Your task to perform on an android device: toggle data saver in the chrome app Image 0: 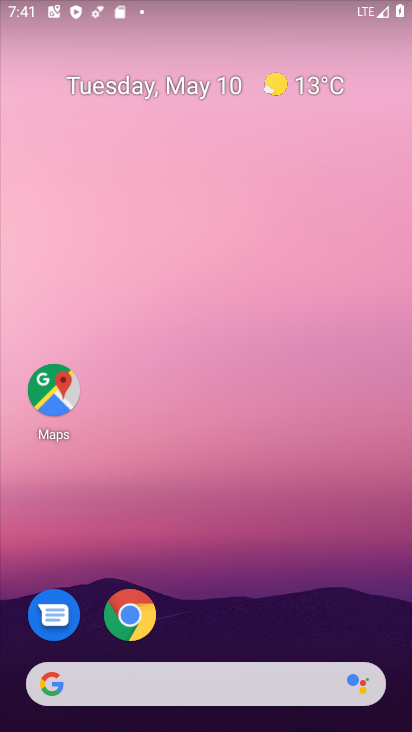
Step 0: drag from (314, 572) to (396, 68)
Your task to perform on an android device: toggle data saver in the chrome app Image 1: 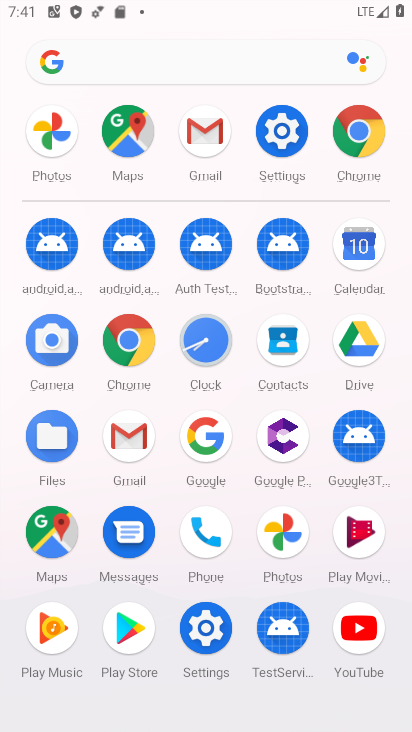
Step 1: click (372, 134)
Your task to perform on an android device: toggle data saver in the chrome app Image 2: 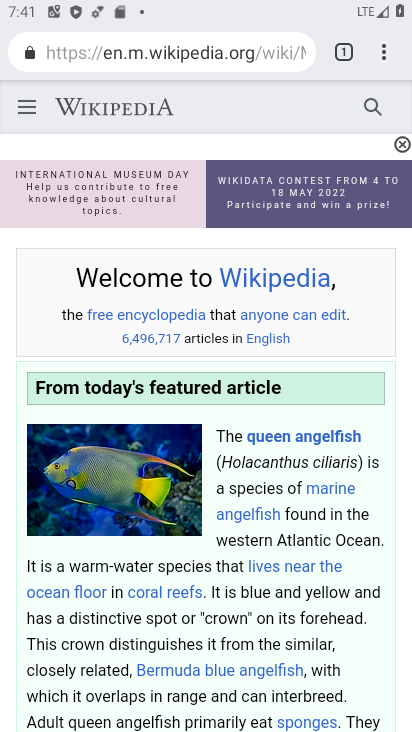
Step 2: drag from (381, 48) to (191, 642)
Your task to perform on an android device: toggle data saver in the chrome app Image 3: 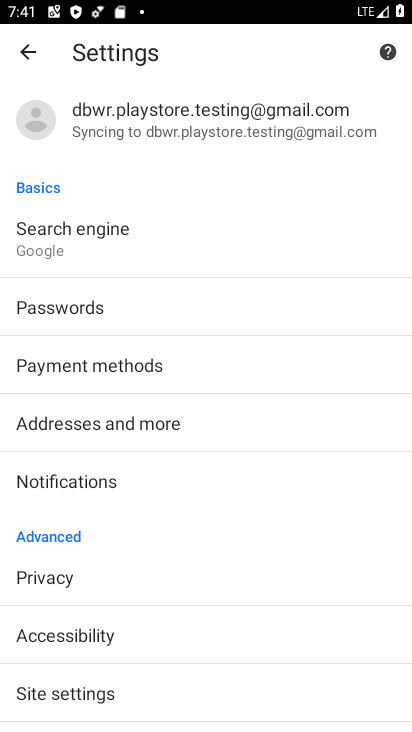
Step 3: drag from (157, 668) to (195, 225)
Your task to perform on an android device: toggle data saver in the chrome app Image 4: 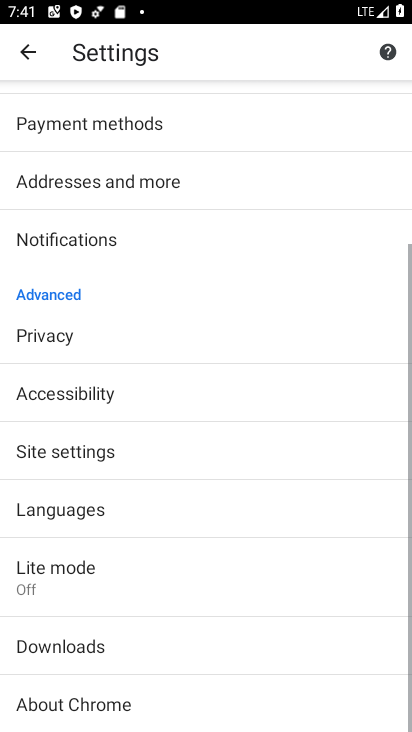
Step 4: click (85, 579)
Your task to perform on an android device: toggle data saver in the chrome app Image 5: 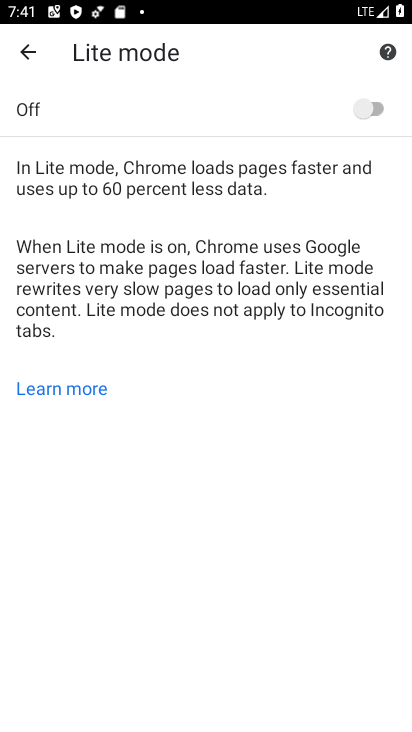
Step 5: click (364, 99)
Your task to perform on an android device: toggle data saver in the chrome app Image 6: 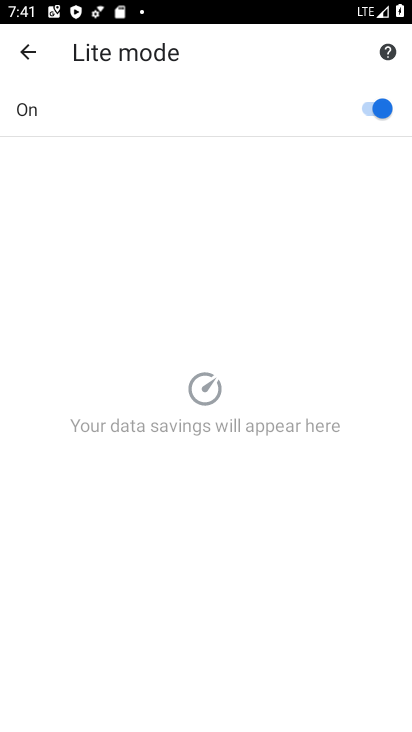
Step 6: task complete